Your task to perform on an android device: See recent photos Image 0: 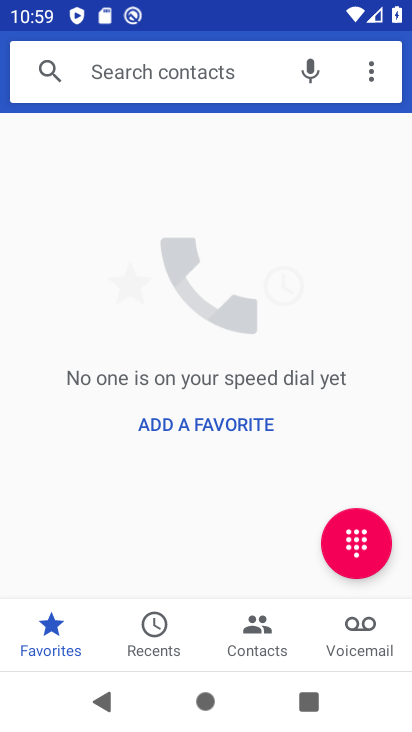
Step 0: press home button
Your task to perform on an android device: See recent photos Image 1: 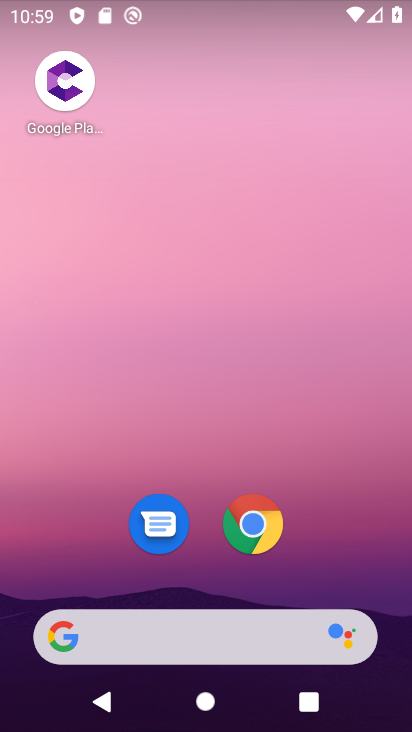
Step 1: drag from (304, 455) to (283, 25)
Your task to perform on an android device: See recent photos Image 2: 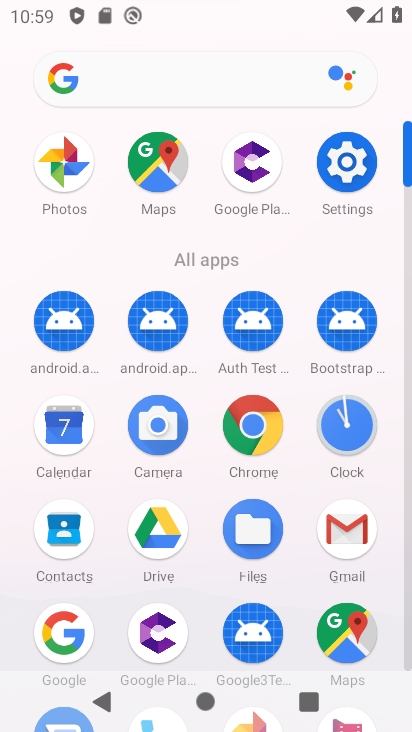
Step 2: click (69, 165)
Your task to perform on an android device: See recent photos Image 3: 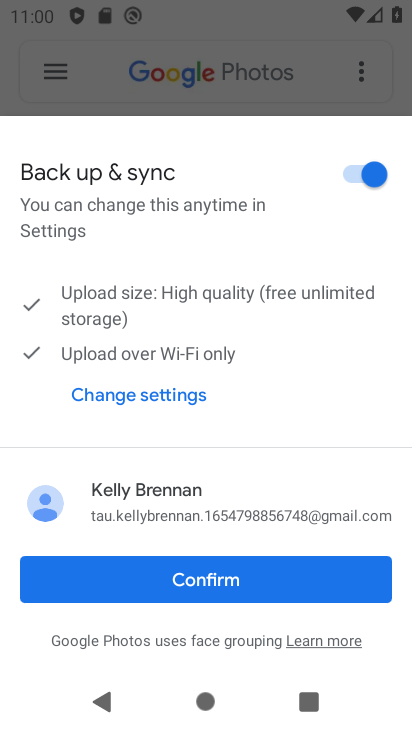
Step 3: click (257, 578)
Your task to perform on an android device: See recent photos Image 4: 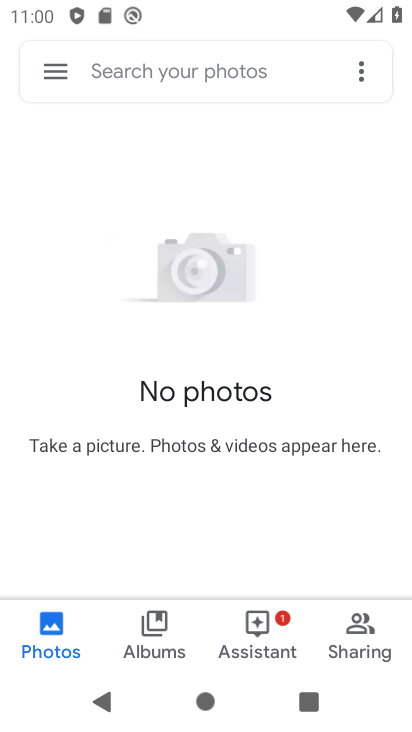
Step 4: task complete